Your task to perform on an android device: Show me popular games on the Play Store Image 0: 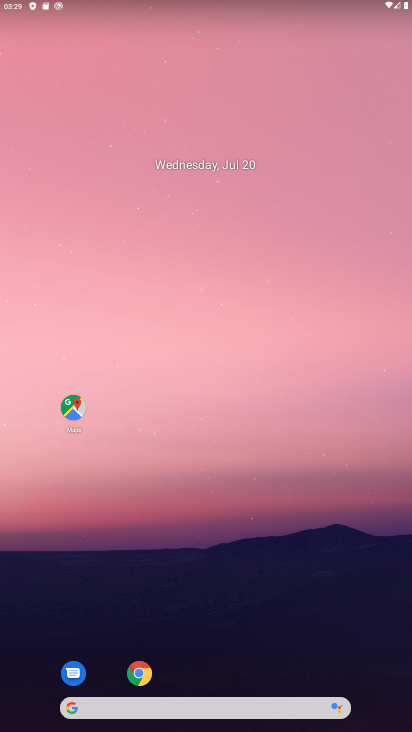
Step 0: drag from (246, 657) to (100, 248)
Your task to perform on an android device: Show me popular games on the Play Store Image 1: 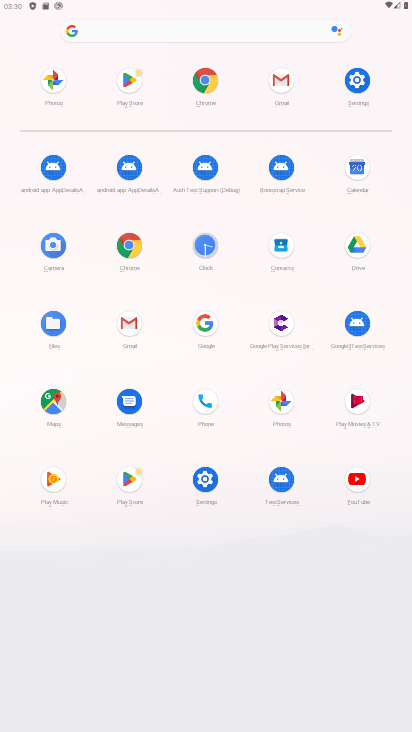
Step 1: click (136, 474)
Your task to perform on an android device: Show me popular games on the Play Store Image 2: 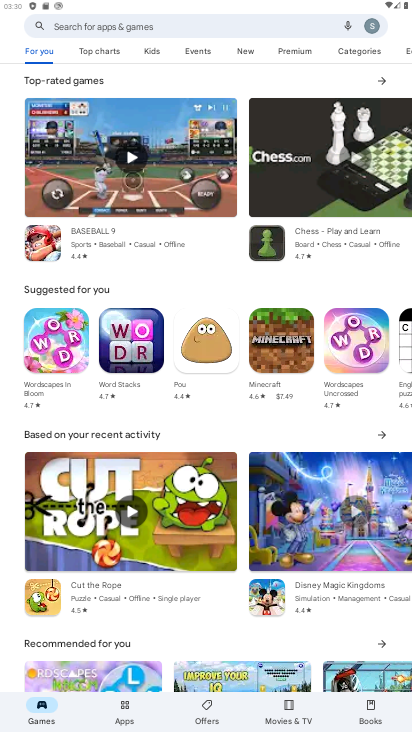
Step 2: task complete